Your task to perform on an android device: Show me productivity apps on the Play Store Image 0: 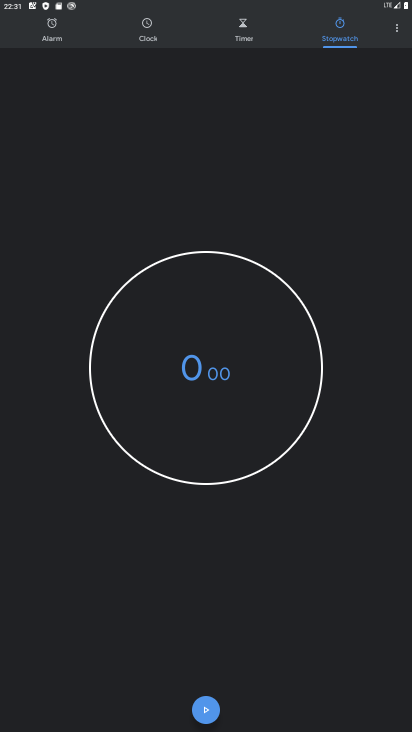
Step 0: press home button
Your task to perform on an android device: Show me productivity apps on the Play Store Image 1: 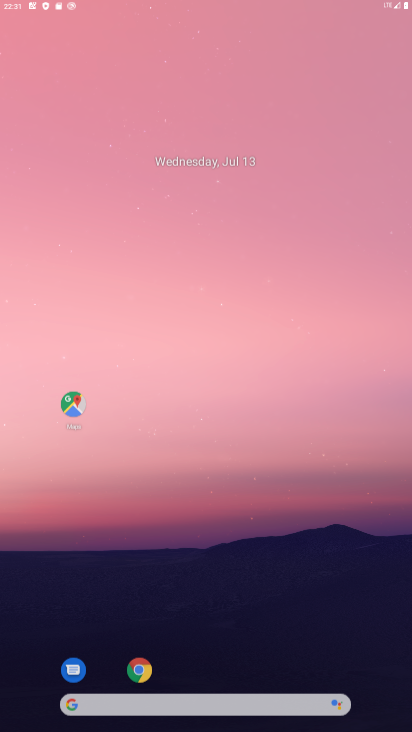
Step 1: drag from (249, 591) to (249, 445)
Your task to perform on an android device: Show me productivity apps on the Play Store Image 2: 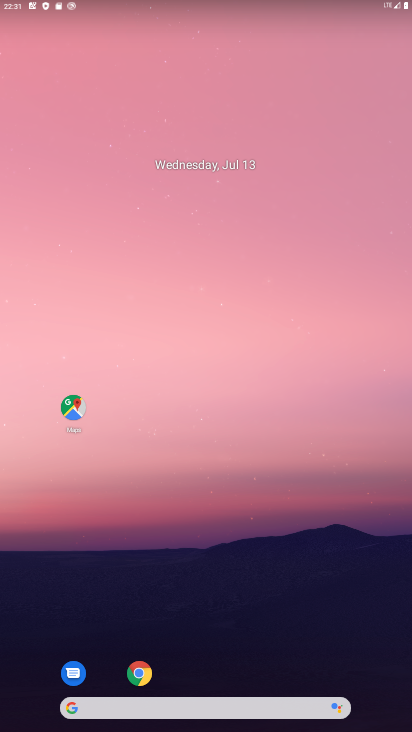
Step 2: drag from (205, 605) to (246, 235)
Your task to perform on an android device: Show me productivity apps on the Play Store Image 3: 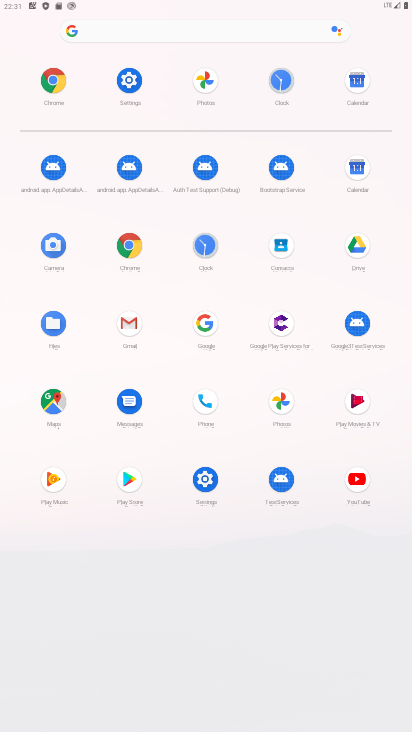
Step 3: click (118, 480)
Your task to perform on an android device: Show me productivity apps on the Play Store Image 4: 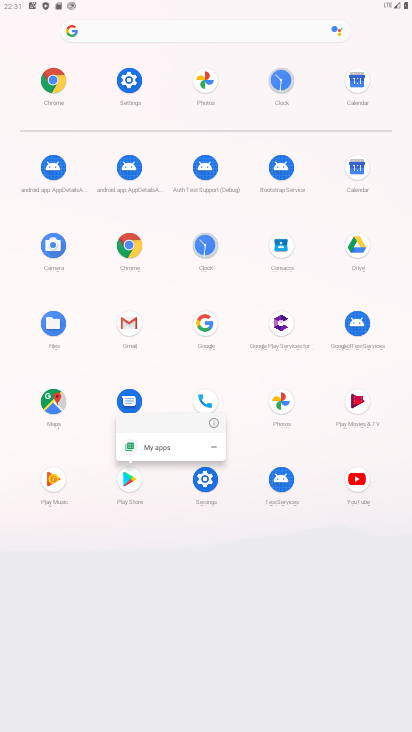
Step 4: click (213, 419)
Your task to perform on an android device: Show me productivity apps on the Play Store Image 5: 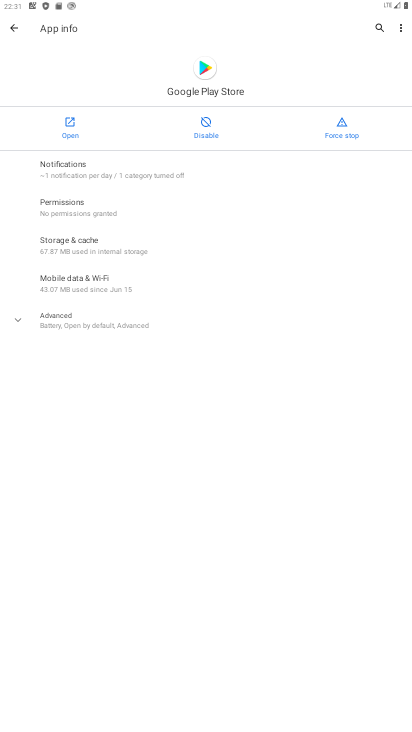
Step 5: click (80, 127)
Your task to perform on an android device: Show me productivity apps on the Play Store Image 6: 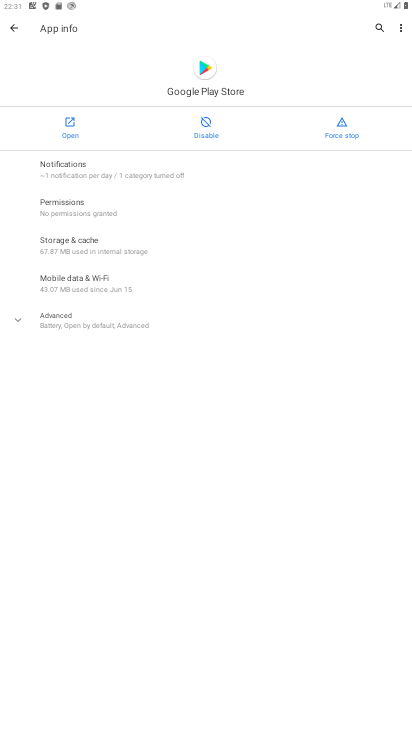
Step 6: click (80, 127)
Your task to perform on an android device: Show me productivity apps on the Play Store Image 7: 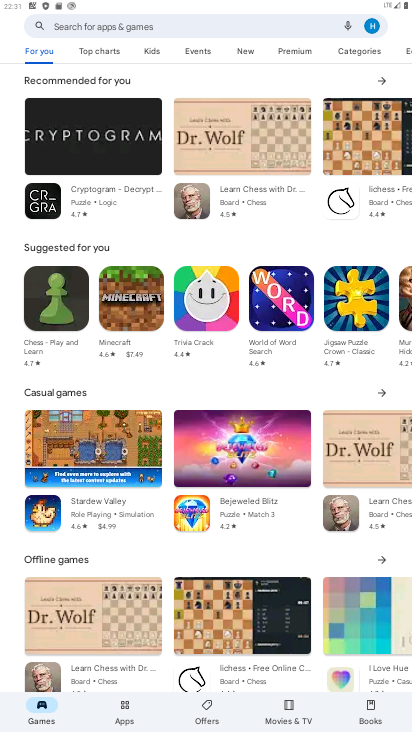
Step 7: task complete